Your task to perform on an android device: Do I have any events today? Image 0: 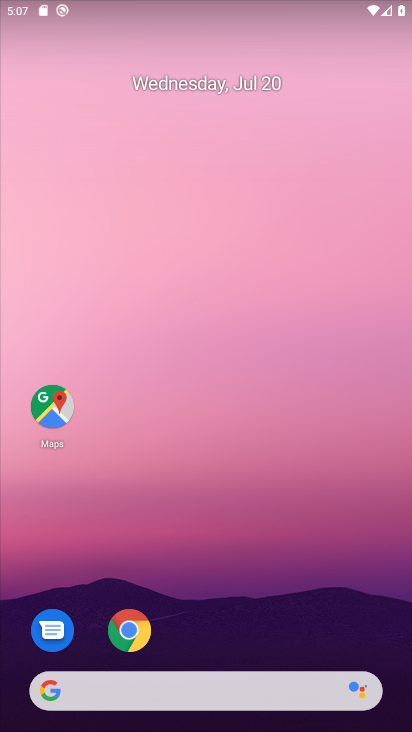
Step 0: press home button
Your task to perform on an android device: Do I have any events today? Image 1: 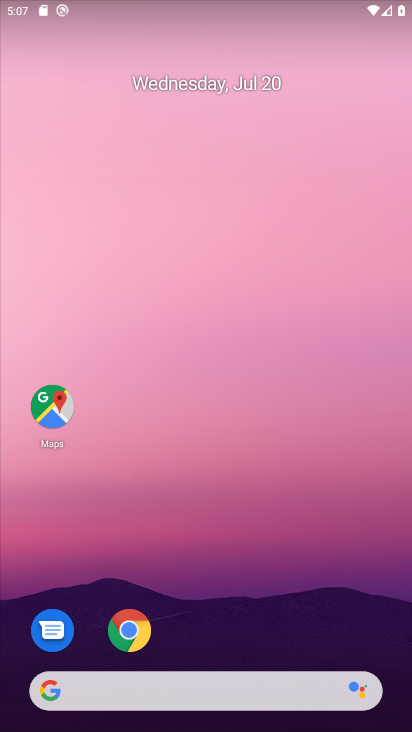
Step 1: drag from (276, 635) to (321, 19)
Your task to perform on an android device: Do I have any events today? Image 2: 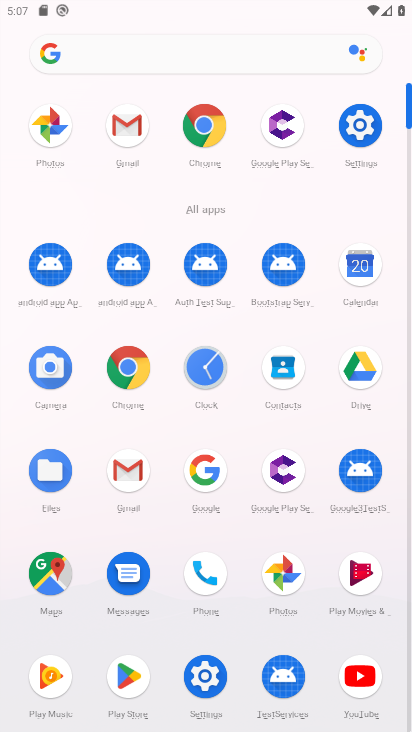
Step 2: click (363, 267)
Your task to perform on an android device: Do I have any events today? Image 3: 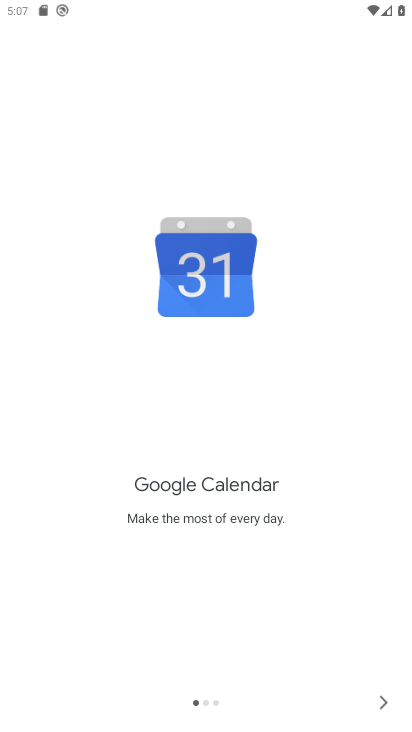
Step 3: click (389, 697)
Your task to perform on an android device: Do I have any events today? Image 4: 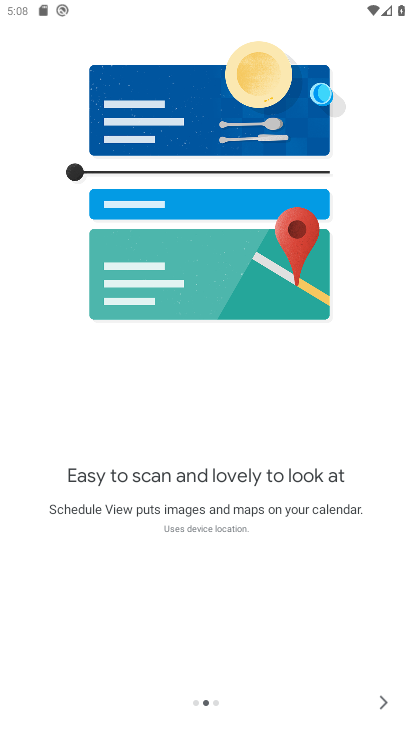
Step 4: click (381, 703)
Your task to perform on an android device: Do I have any events today? Image 5: 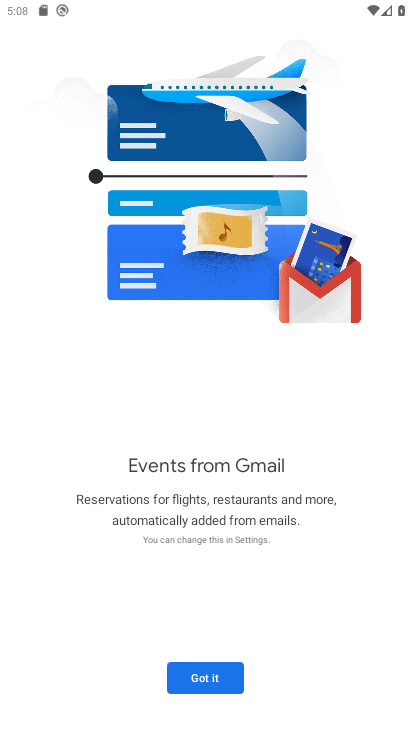
Step 5: click (187, 675)
Your task to perform on an android device: Do I have any events today? Image 6: 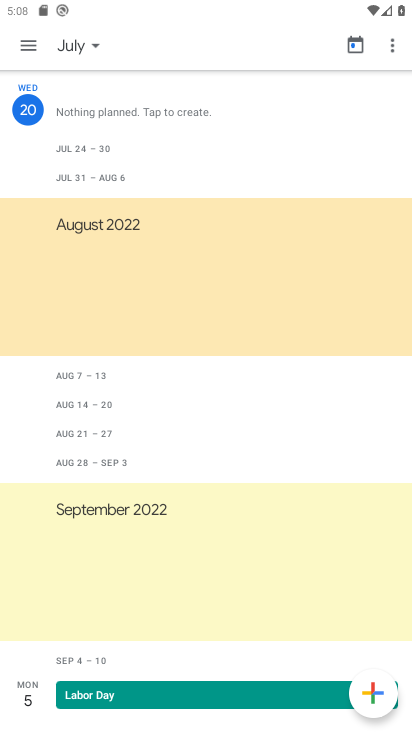
Step 6: click (81, 54)
Your task to perform on an android device: Do I have any events today? Image 7: 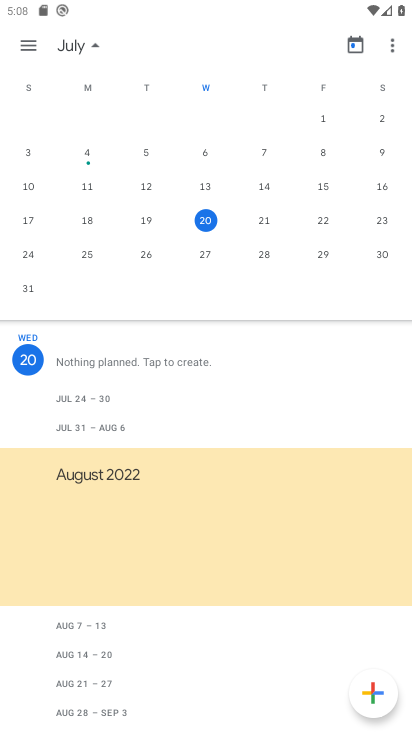
Step 7: click (204, 216)
Your task to perform on an android device: Do I have any events today? Image 8: 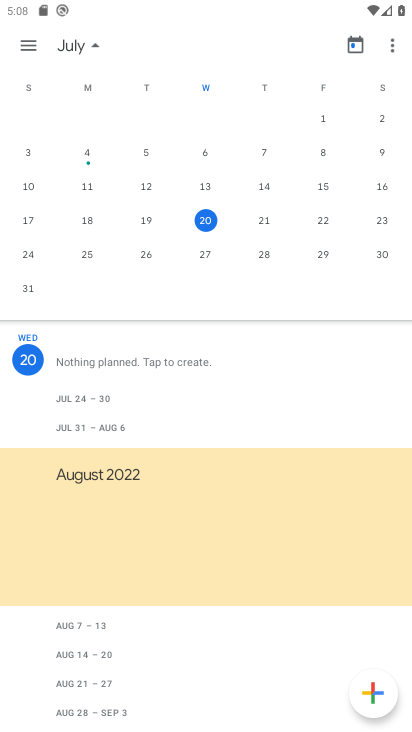
Step 8: task complete